Your task to perform on an android device: turn off smart reply in the gmail app Image 0: 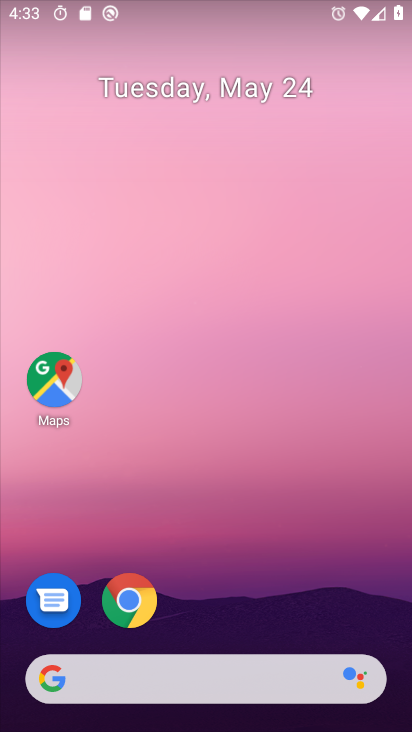
Step 0: drag from (164, 667) to (181, 157)
Your task to perform on an android device: turn off smart reply in the gmail app Image 1: 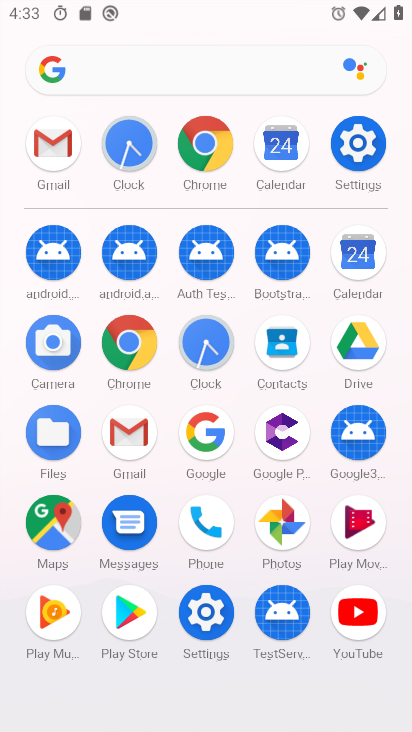
Step 1: click (149, 429)
Your task to perform on an android device: turn off smart reply in the gmail app Image 2: 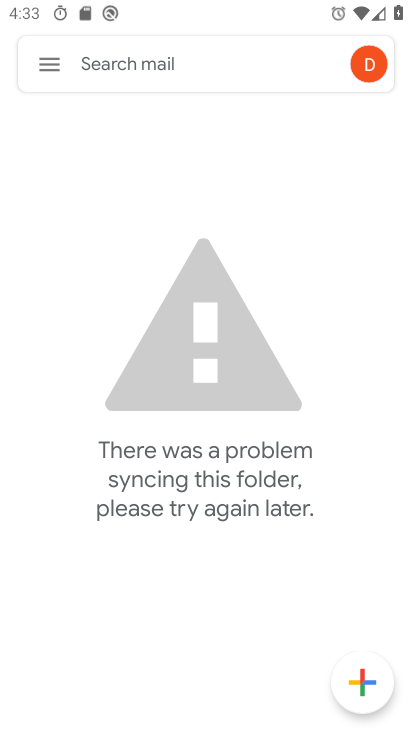
Step 2: click (55, 53)
Your task to perform on an android device: turn off smart reply in the gmail app Image 3: 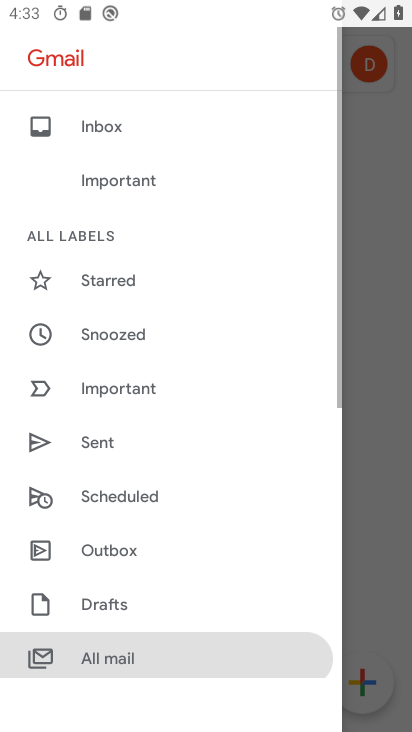
Step 3: drag from (131, 621) to (118, 69)
Your task to perform on an android device: turn off smart reply in the gmail app Image 4: 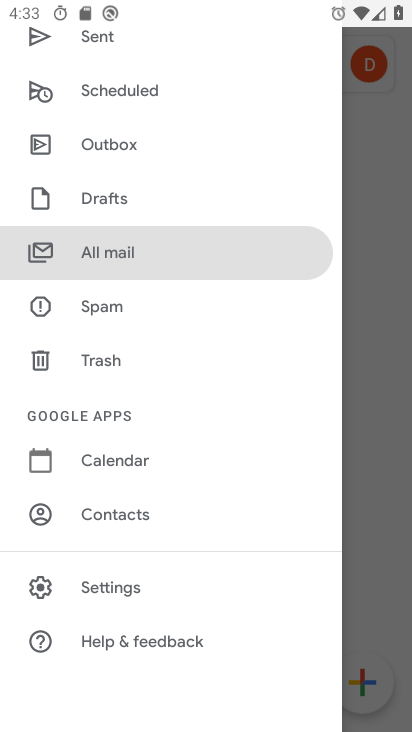
Step 4: click (124, 586)
Your task to perform on an android device: turn off smart reply in the gmail app Image 5: 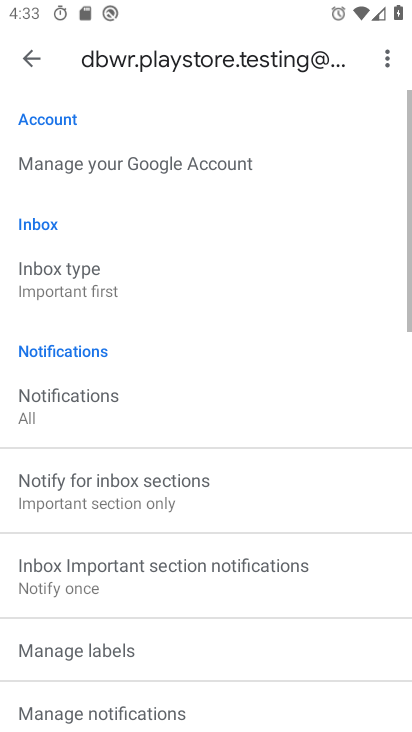
Step 5: drag from (136, 584) to (162, 141)
Your task to perform on an android device: turn off smart reply in the gmail app Image 6: 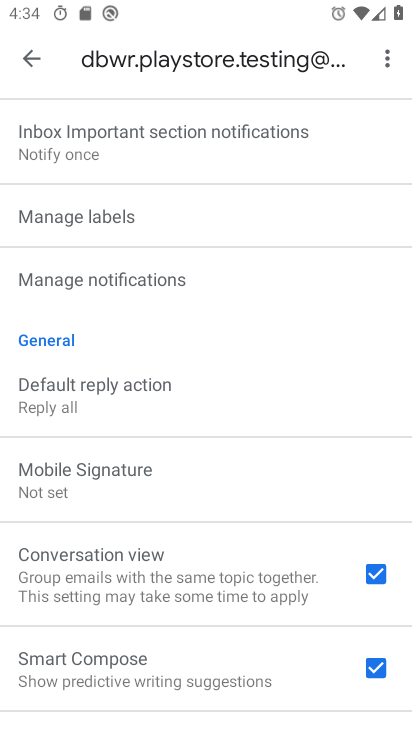
Step 6: drag from (140, 685) to (186, 291)
Your task to perform on an android device: turn off smart reply in the gmail app Image 7: 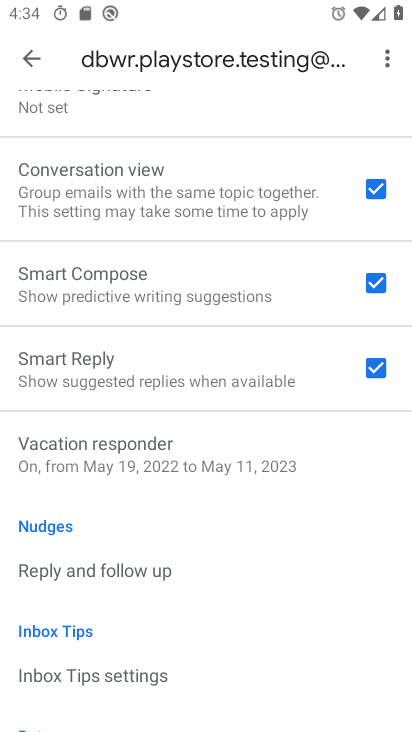
Step 7: click (375, 360)
Your task to perform on an android device: turn off smart reply in the gmail app Image 8: 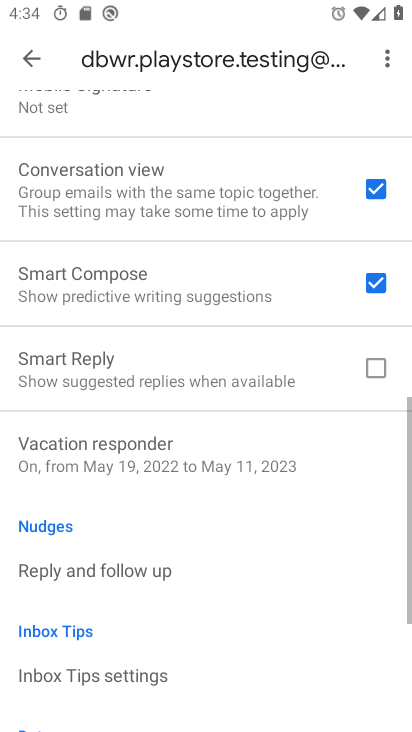
Step 8: task complete